Your task to perform on an android device: allow notifications from all sites in the chrome app Image 0: 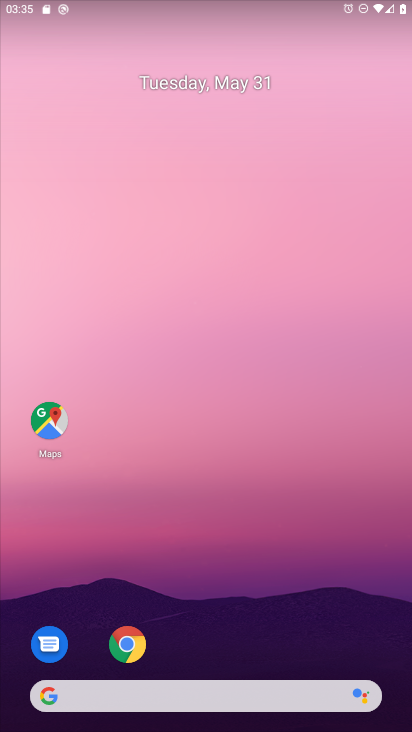
Step 0: drag from (337, 581) to (262, 100)
Your task to perform on an android device: allow notifications from all sites in the chrome app Image 1: 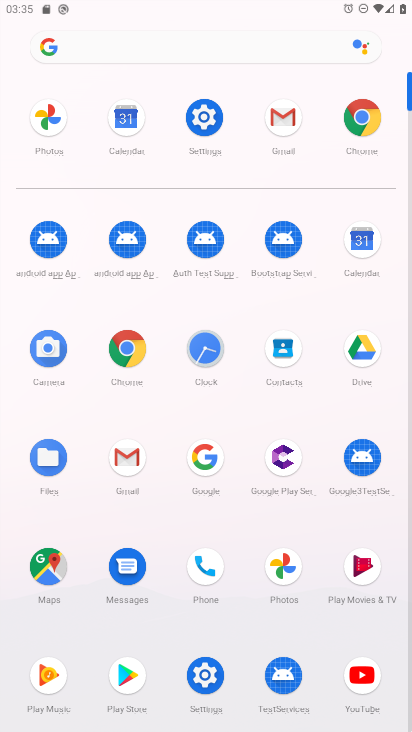
Step 1: click (127, 348)
Your task to perform on an android device: allow notifications from all sites in the chrome app Image 2: 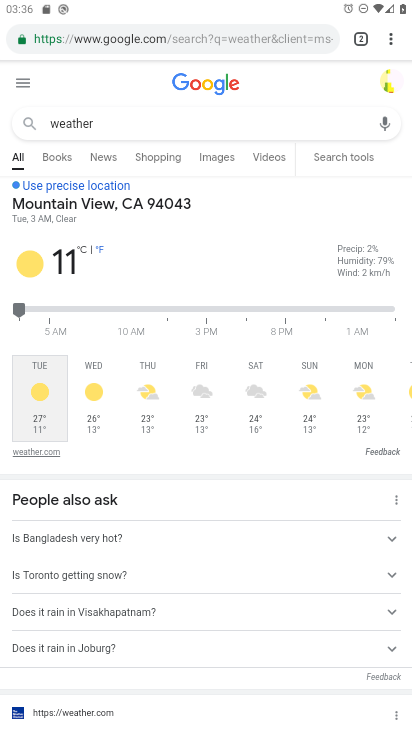
Step 2: drag from (397, 34) to (279, 432)
Your task to perform on an android device: allow notifications from all sites in the chrome app Image 3: 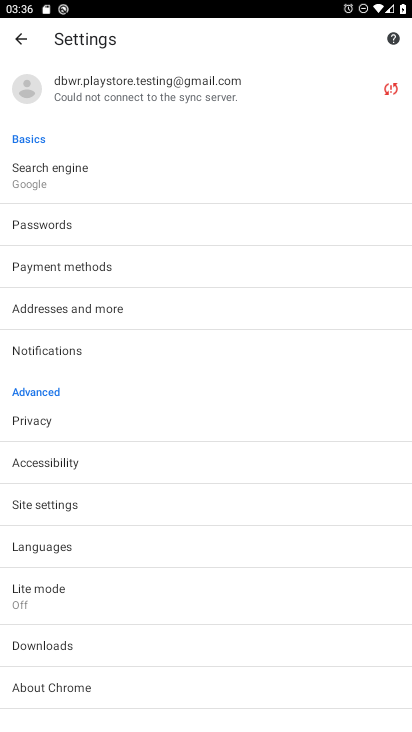
Step 3: drag from (141, 626) to (174, 305)
Your task to perform on an android device: allow notifications from all sites in the chrome app Image 4: 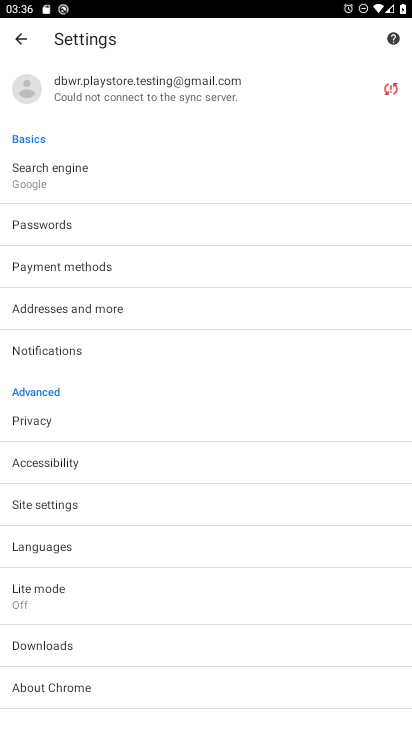
Step 4: click (57, 345)
Your task to perform on an android device: allow notifications from all sites in the chrome app Image 5: 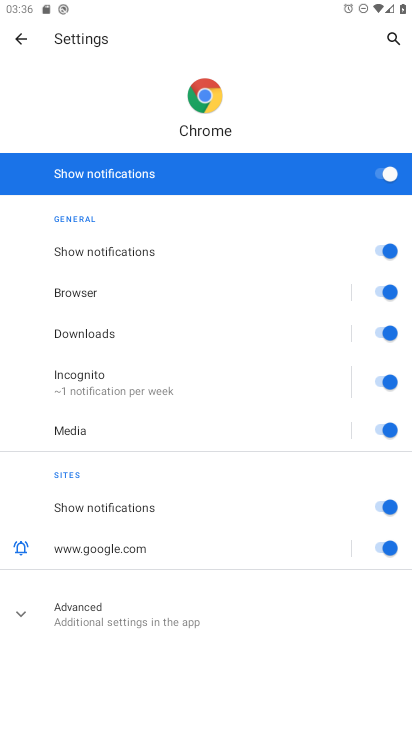
Step 5: task complete